Your task to perform on an android device: Show me productivity apps on the Play Store Image 0: 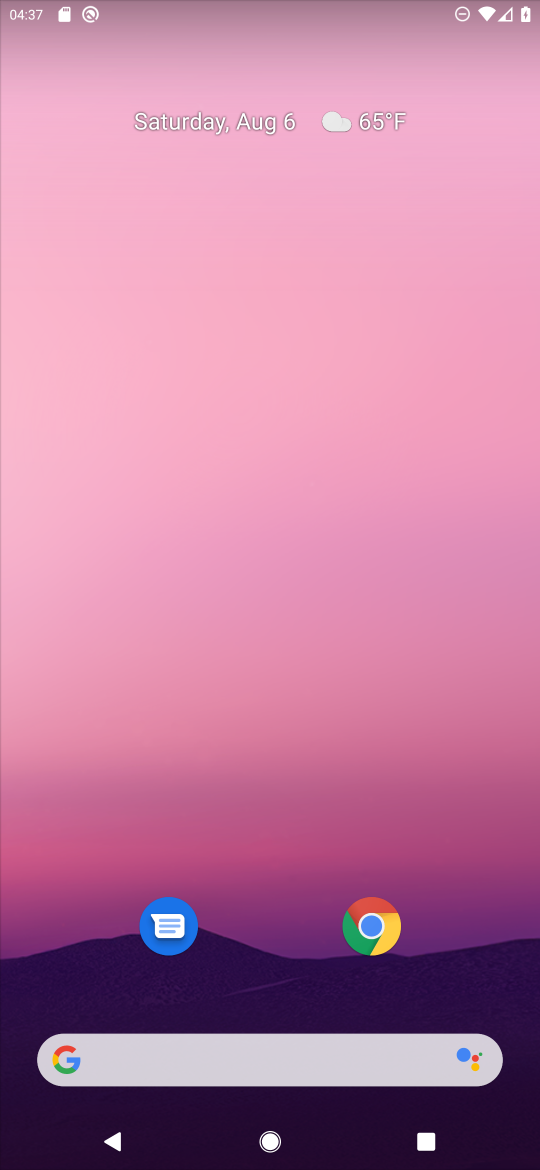
Step 0: drag from (259, 933) to (235, 346)
Your task to perform on an android device: Show me productivity apps on the Play Store Image 1: 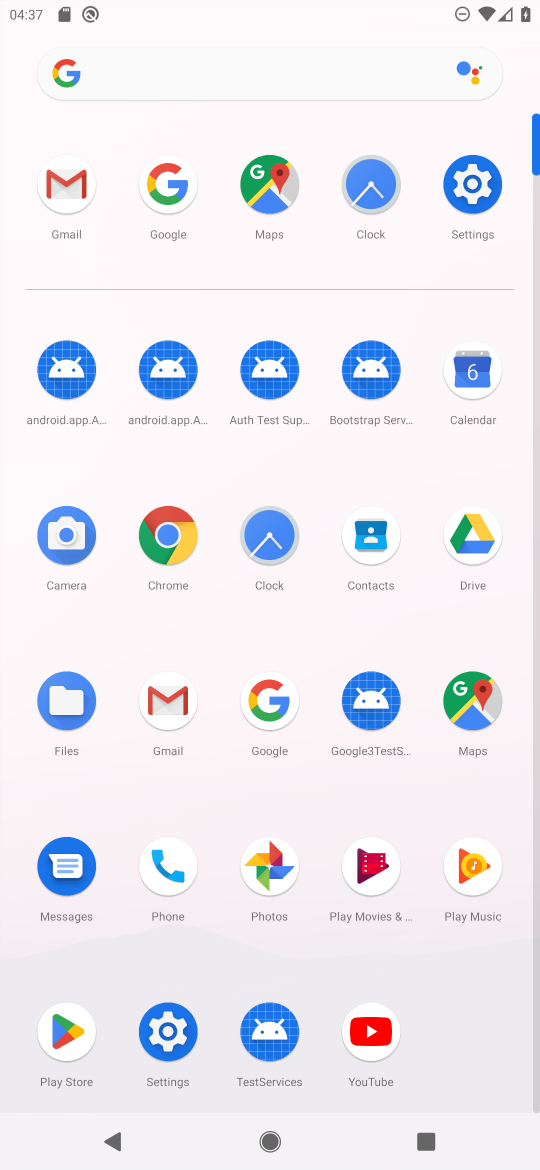
Step 1: click (67, 1026)
Your task to perform on an android device: Show me productivity apps on the Play Store Image 2: 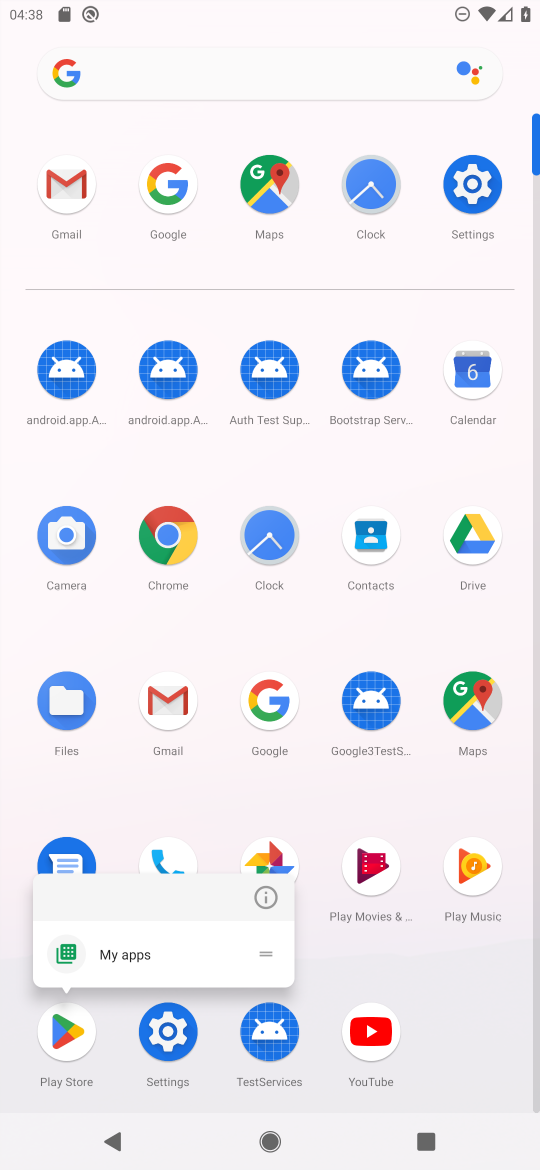
Step 2: click (60, 1055)
Your task to perform on an android device: Show me productivity apps on the Play Store Image 3: 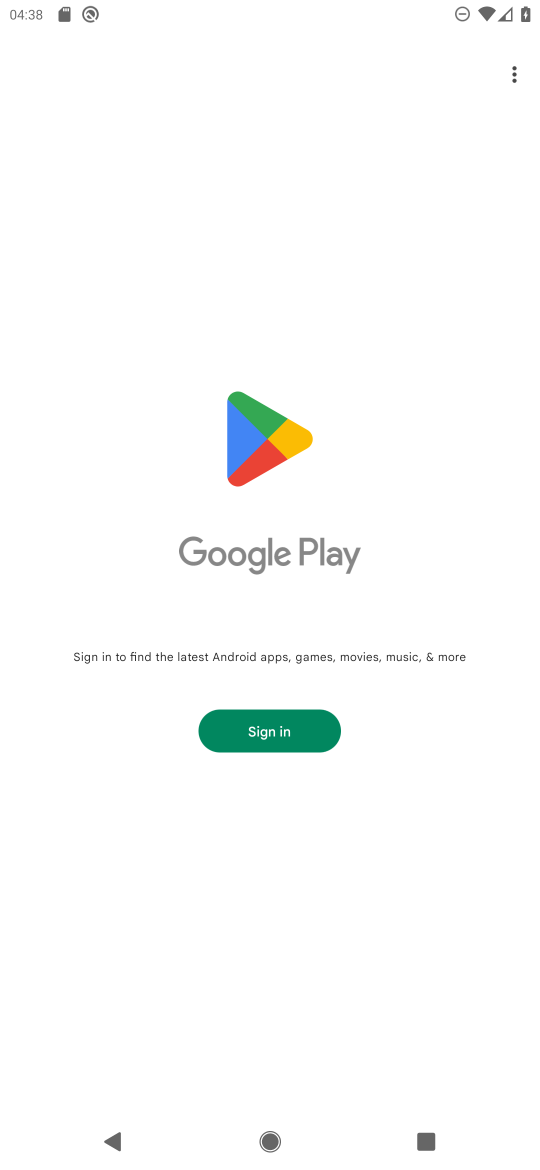
Step 3: task complete